Your task to perform on an android device: turn on location history Image 0: 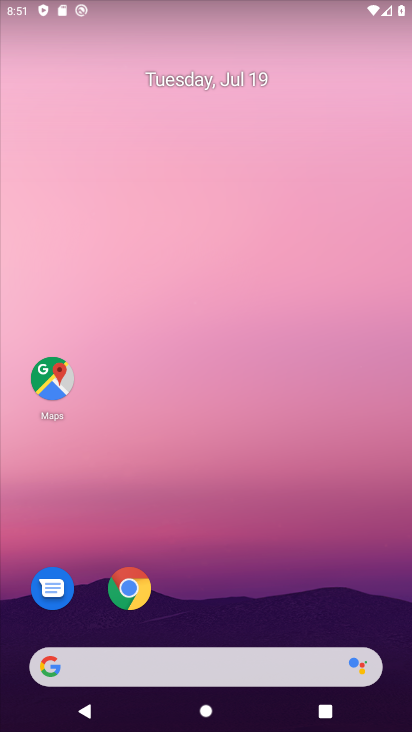
Step 0: drag from (226, 569) to (309, 44)
Your task to perform on an android device: turn on location history Image 1: 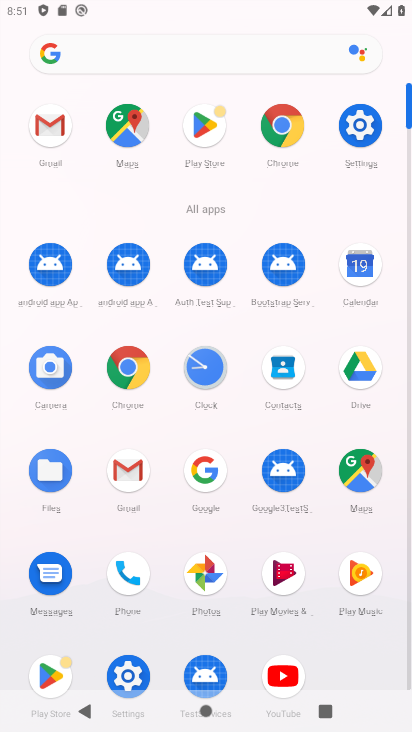
Step 1: click (358, 121)
Your task to perform on an android device: turn on location history Image 2: 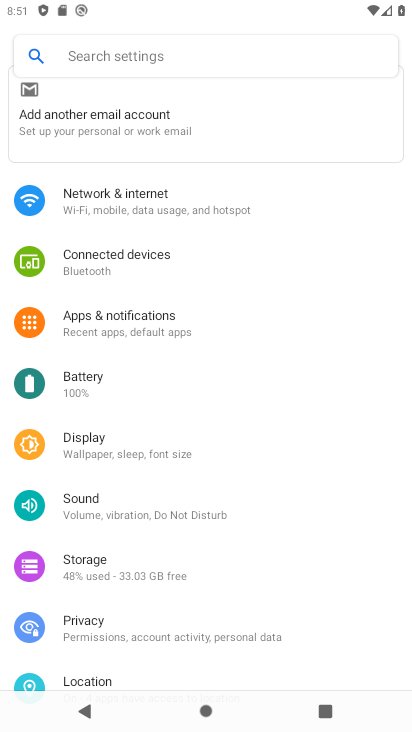
Step 2: drag from (55, 638) to (167, 257)
Your task to perform on an android device: turn on location history Image 3: 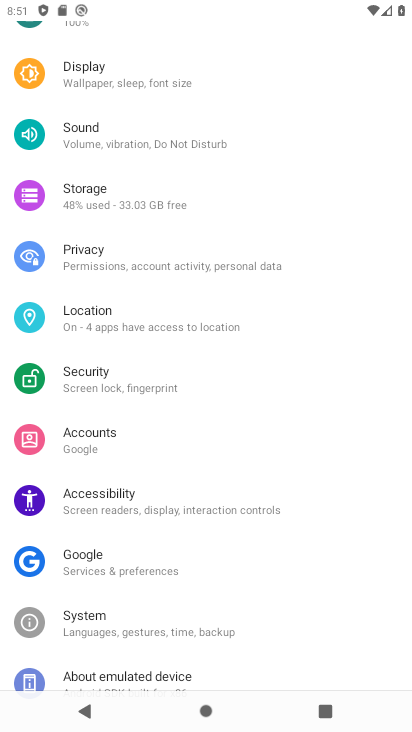
Step 3: click (150, 333)
Your task to perform on an android device: turn on location history Image 4: 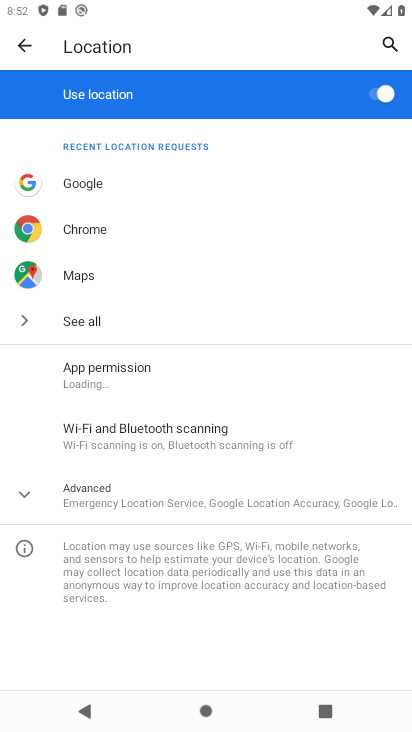
Step 4: click (113, 498)
Your task to perform on an android device: turn on location history Image 5: 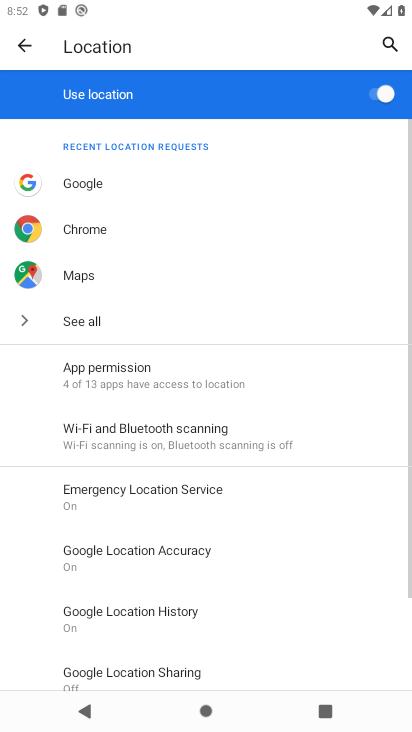
Step 5: drag from (142, 630) to (158, 345)
Your task to perform on an android device: turn on location history Image 6: 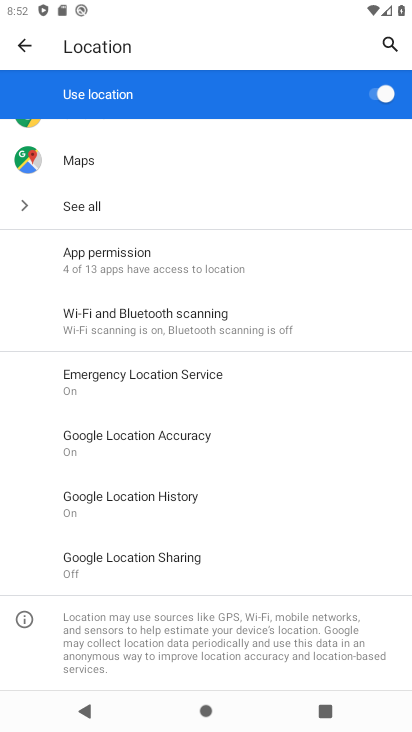
Step 6: click (116, 498)
Your task to perform on an android device: turn on location history Image 7: 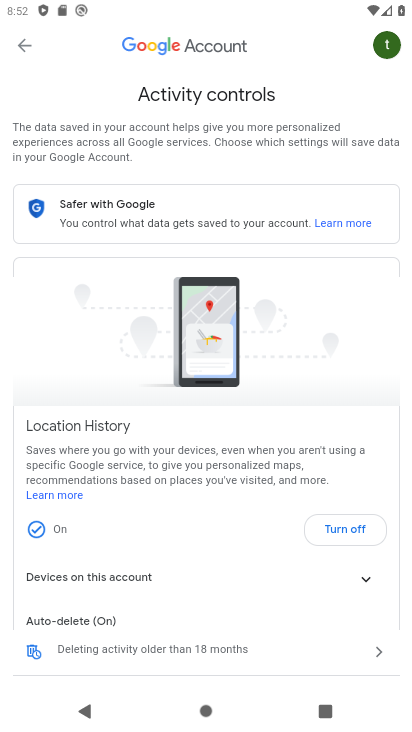
Step 7: task complete